Your task to perform on an android device: open sync settings in chrome Image 0: 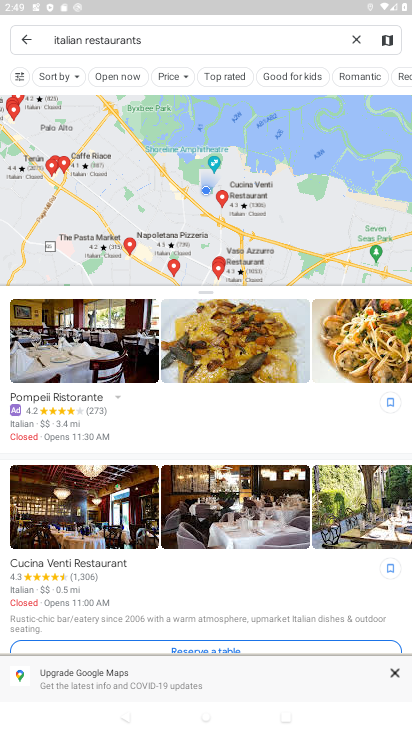
Step 0: press home button
Your task to perform on an android device: open sync settings in chrome Image 1: 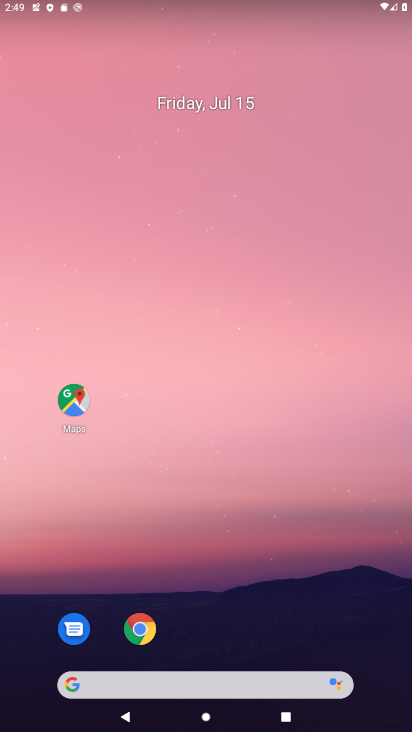
Step 1: drag from (236, 657) to (204, 77)
Your task to perform on an android device: open sync settings in chrome Image 2: 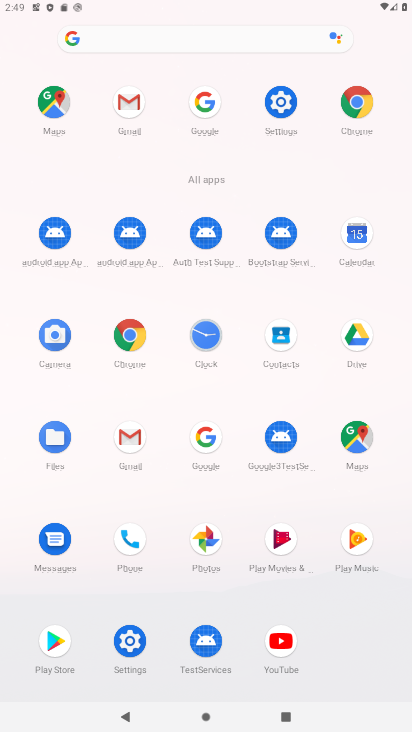
Step 2: click (115, 329)
Your task to perform on an android device: open sync settings in chrome Image 3: 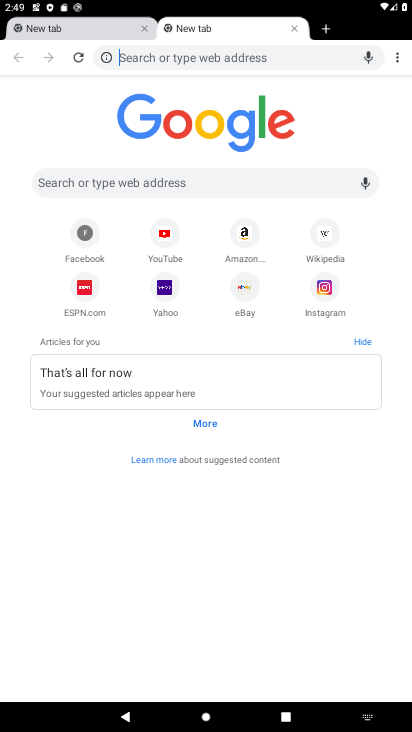
Step 3: drag from (400, 52) to (276, 262)
Your task to perform on an android device: open sync settings in chrome Image 4: 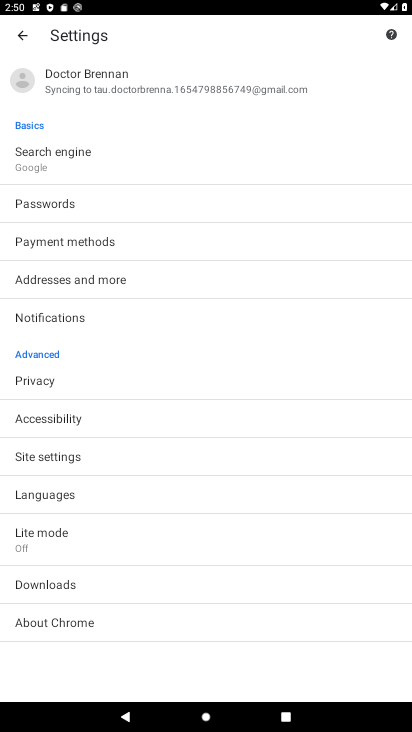
Step 4: click (124, 71)
Your task to perform on an android device: open sync settings in chrome Image 5: 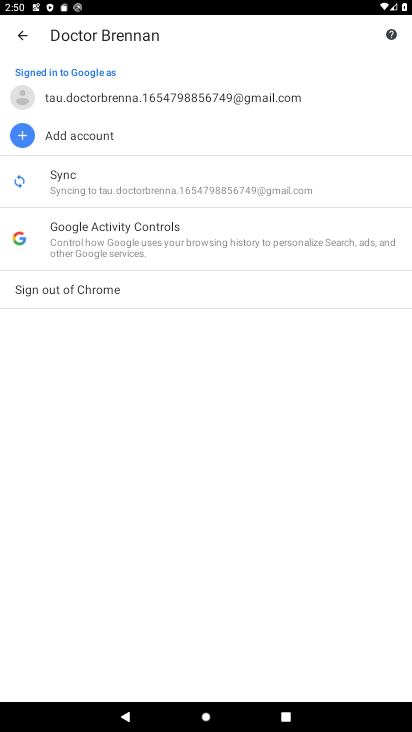
Step 5: click (87, 175)
Your task to perform on an android device: open sync settings in chrome Image 6: 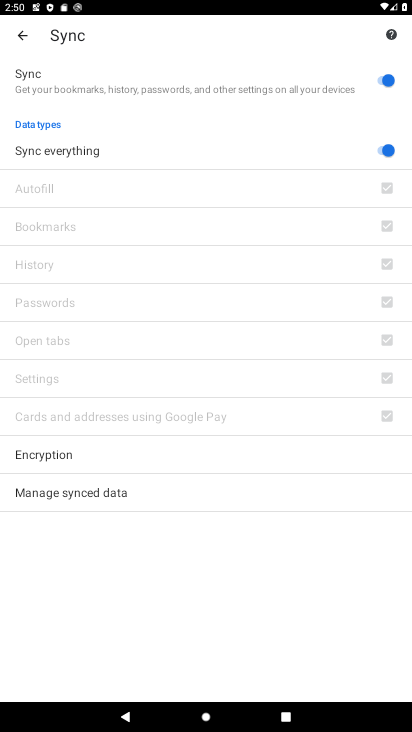
Step 6: task complete